Your task to perform on an android device: Go to ESPN.com Image 0: 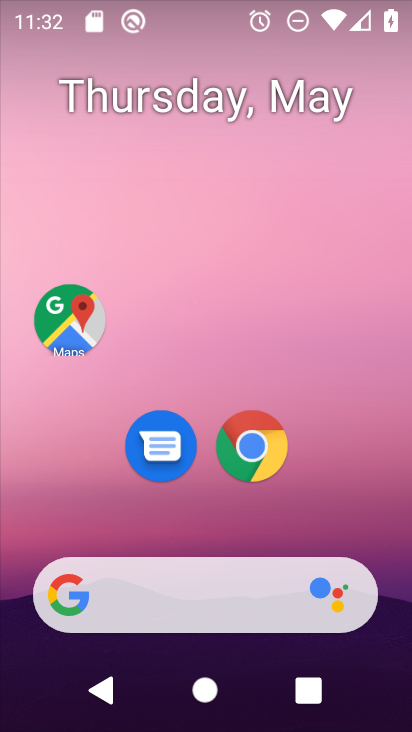
Step 0: drag from (287, 641) to (192, 213)
Your task to perform on an android device: Go to ESPN.com Image 1: 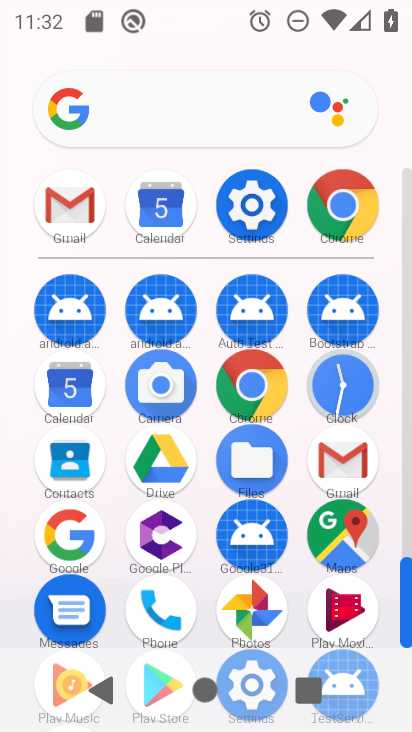
Step 1: click (349, 210)
Your task to perform on an android device: Go to ESPN.com Image 2: 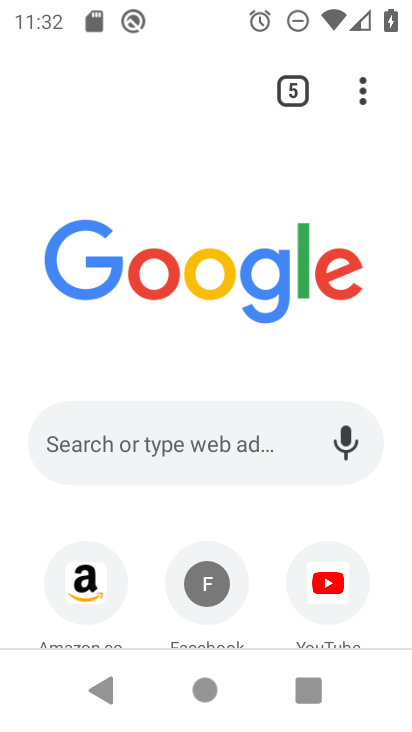
Step 2: drag from (139, 521) to (107, 336)
Your task to perform on an android device: Go to ESPN.com Image 3: 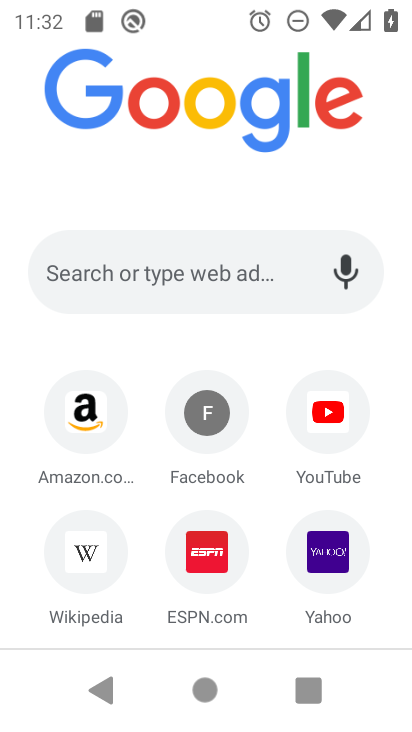
Step 3: click (202, 536)
Your task to perform on an android device: Go to ESPN.com Image 4: 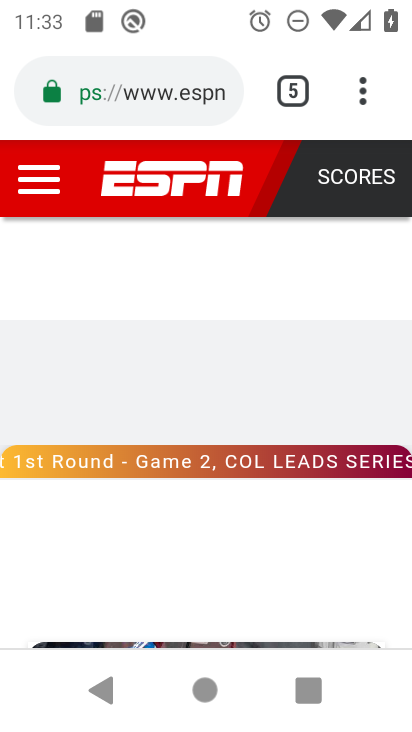
Step 4: task complete